Your task to perform on an android device: turn notification dots off Image 0: 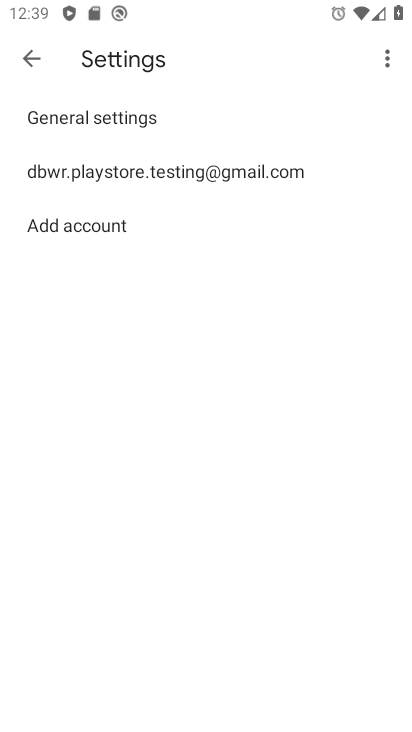
Step 0: press home button
Your task to perform on an android device: turn notification dots off Image 1: 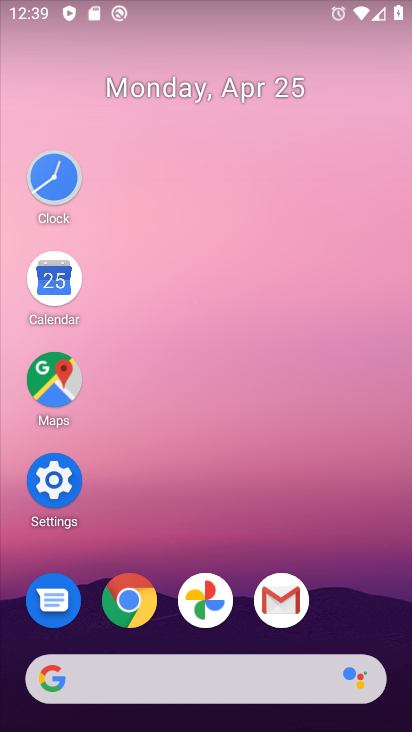
Step 1: click (53, 482)
Your task to perform on an android device: turn notification dots off Image 2: 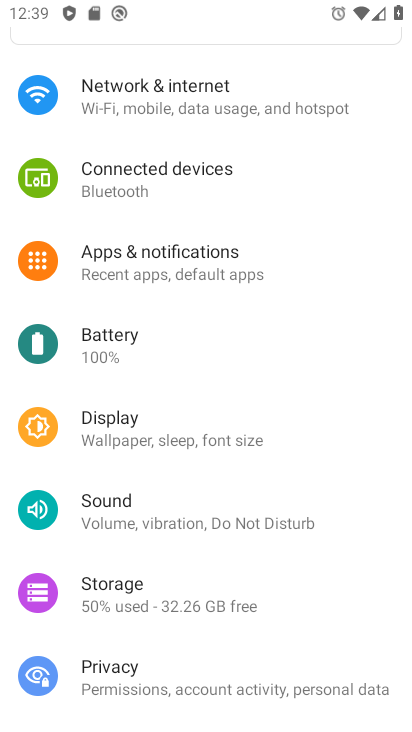
Step 2: click (175, 252)
Your task to perform on an android device: turn notification dots off Image 3: 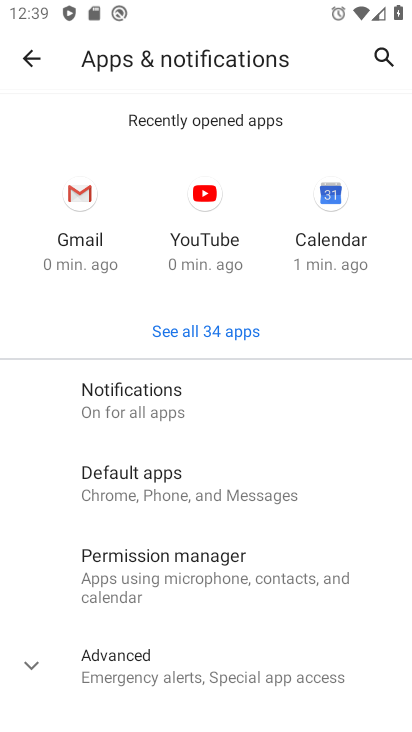
Step 3: click (152, 385)
Your task to perform on an android device: turn notification dots off Image 4: 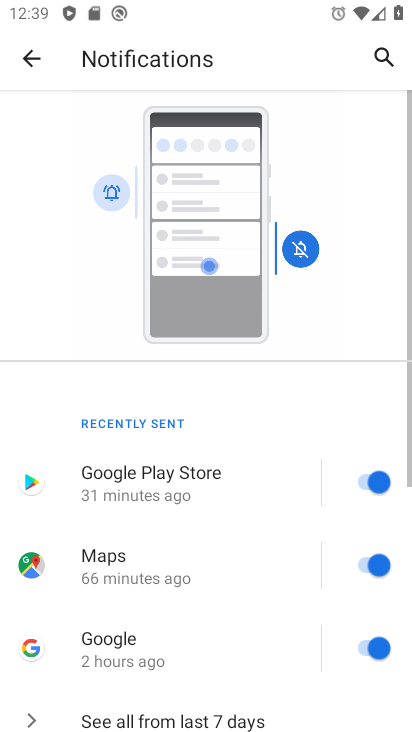
Step 4: drag from (200, 486) to (152, 172)
Your task to perform on an android device: turn notification dots off Image 5: 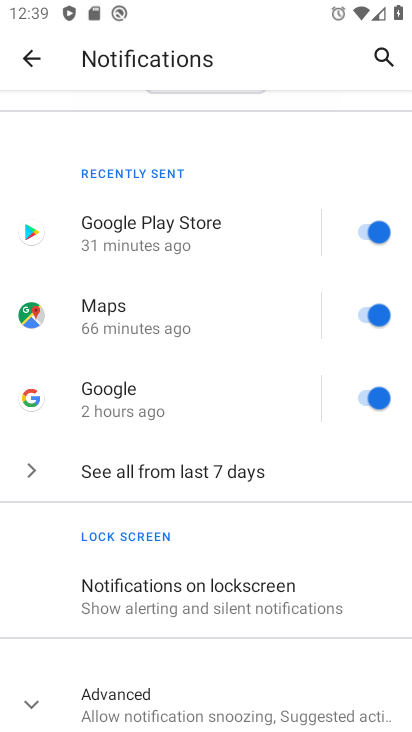
Step 5: click (95, 697)
Your task to perform on an android device: turn notification dots off Image 6: 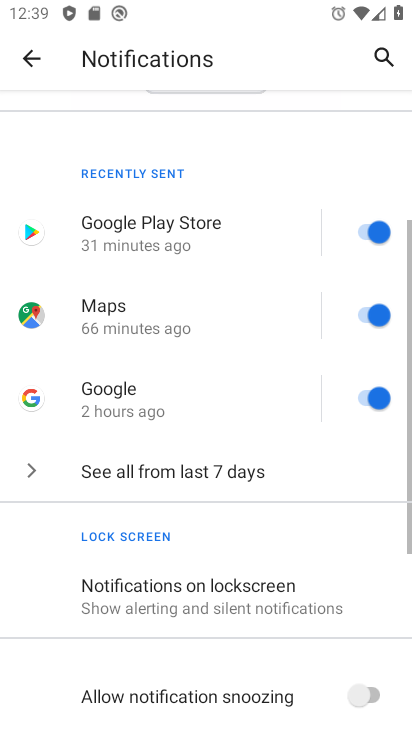
Step 6: task complete